Your task to perform on an android device: Open Google Maps and go to "Timeline" Image 0: 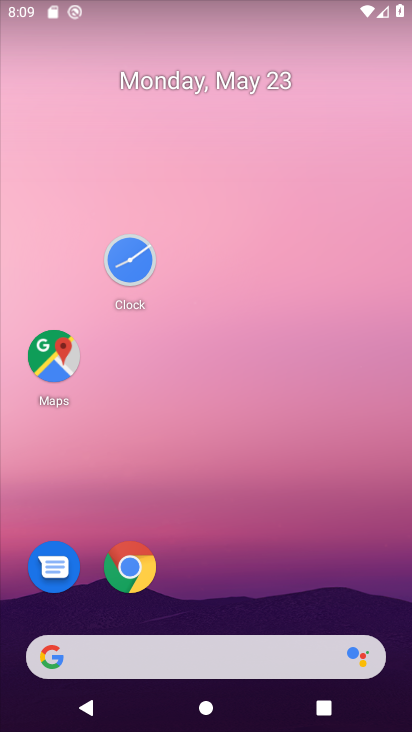
Step 0: click (78, 351)
Your task to perform on an android device: Open Google Maps and go to "Timeline" Image 1: 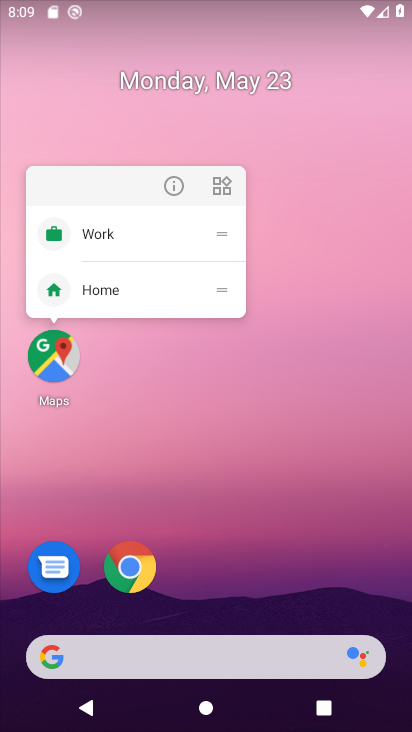
Step 1: click (77, 351)
Your task to perform on an android device: Open Google Maps and go to "Timeline" Image 2: 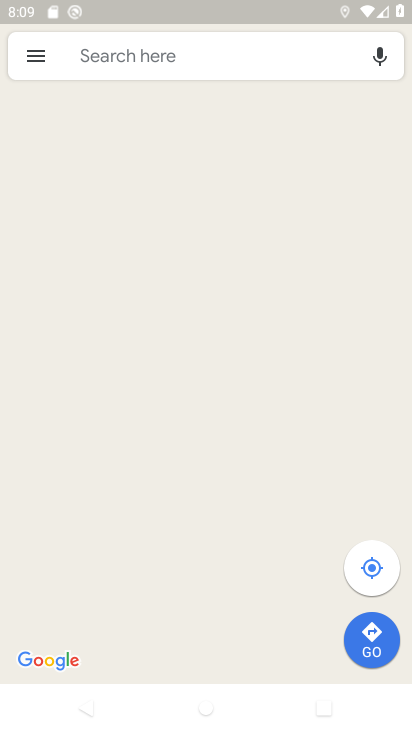
Step 2: click (31, 57)
Your task to perform on an android device: Open Google Maps and go to "Timeline" Image 3: 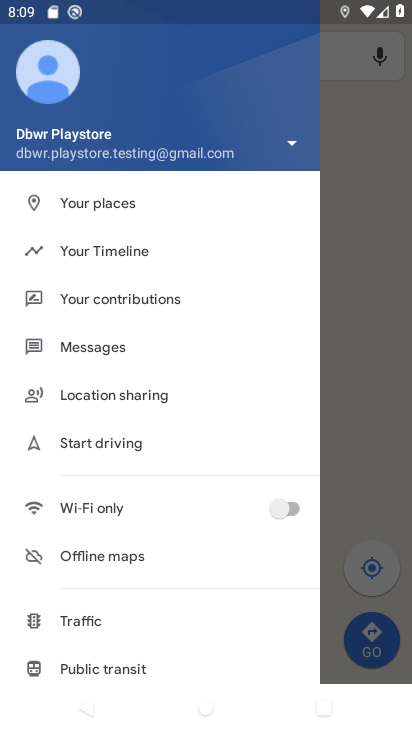
Step 3: click (115, 256)
Your task to perform on an android device: Open Google Maps and go to "Timeline" Image 4: 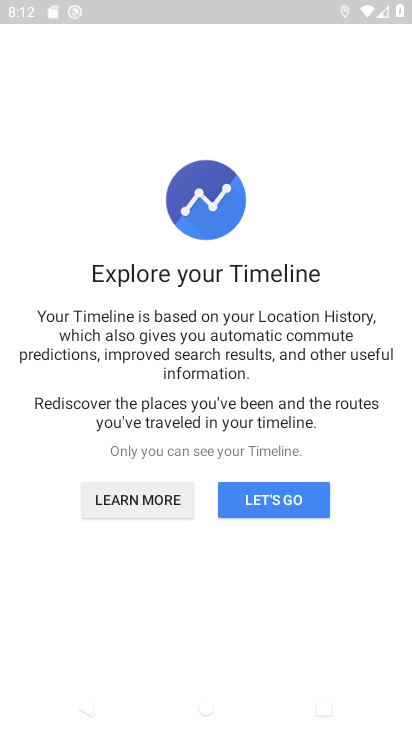
Step 4: click (314, 497)
Your task to perform on an android device: Open Google Maps and go to "Timeline" Image 5: 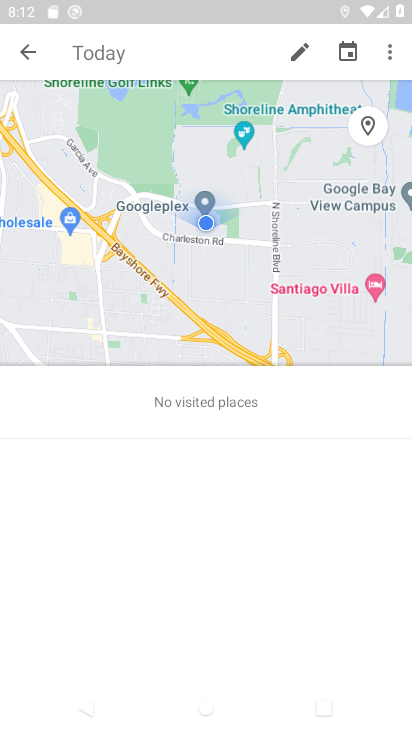
Step 5: task complete